Your task to perform on an android device: Show me recent news Image 0: 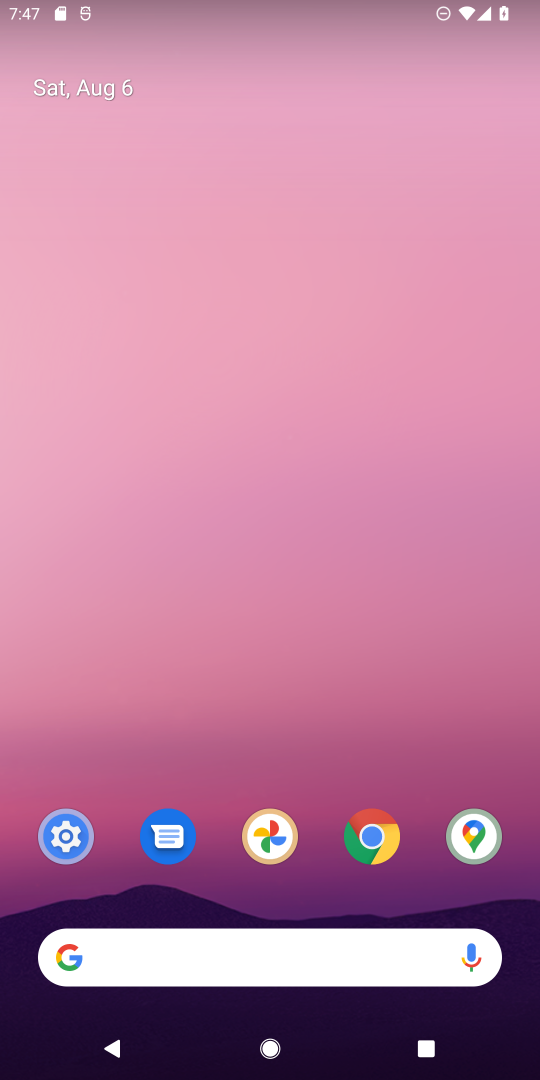
Step 0: drag from (294, 905) to (339, 352)
Your task to perform on an android device: Show me recent news Image 1: 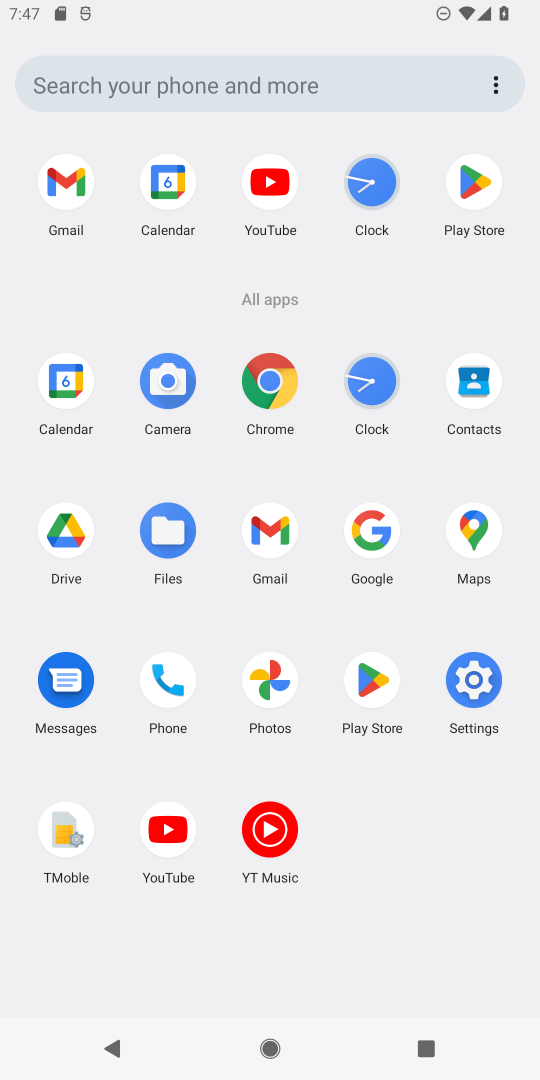
Step 1: click (364, 540)
Your task to perform on an android device: Show me recent news Image 2: 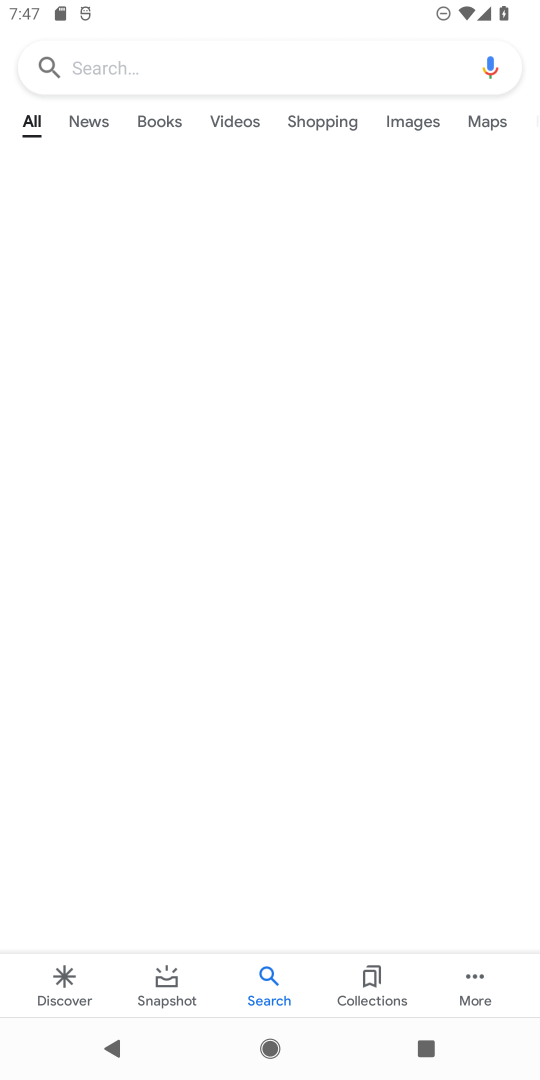
Step 2: click (128, 72)
Your task to perform on an android device: Show me recent news Image 3: 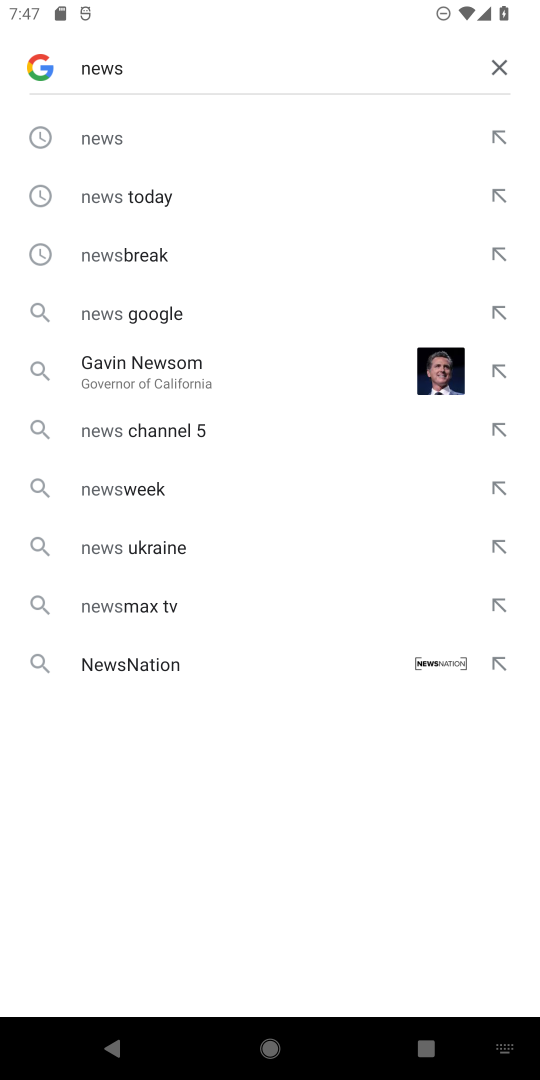
Step 3: click (510, 70)
Your task to perform on an android device: Show me recent news Image 4: 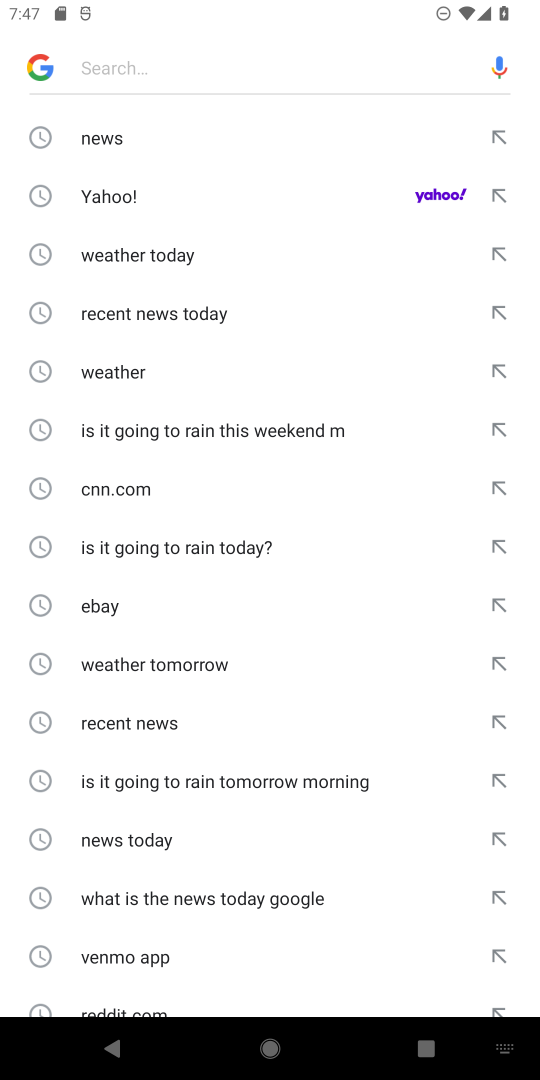
Step 4: click (142, 719)
Your task to perform on an android device: Show me recent news Image 5: 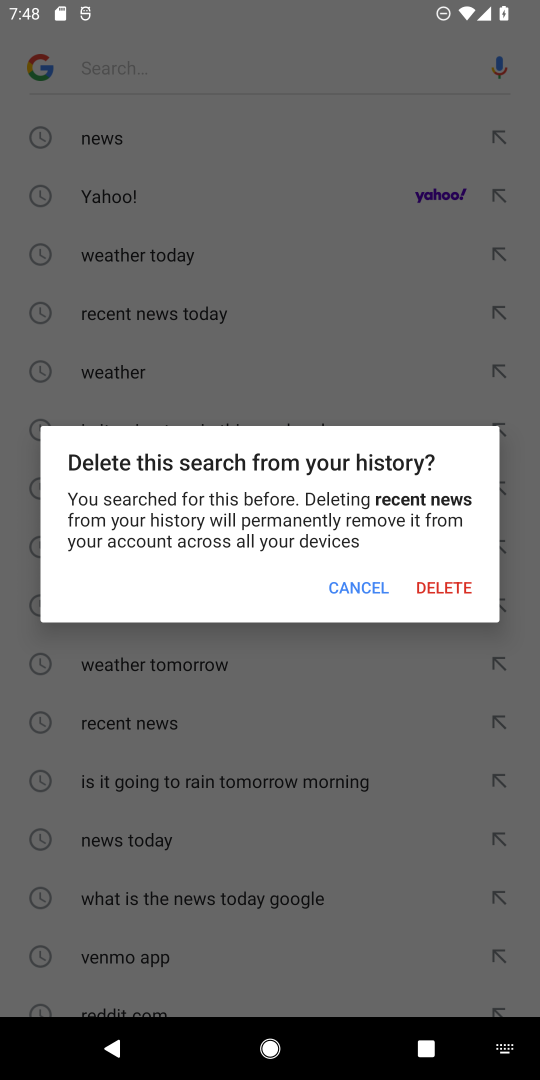
Step 5: click (381, 584)
Your task to perform on an android device: Show me recent news Image 6: 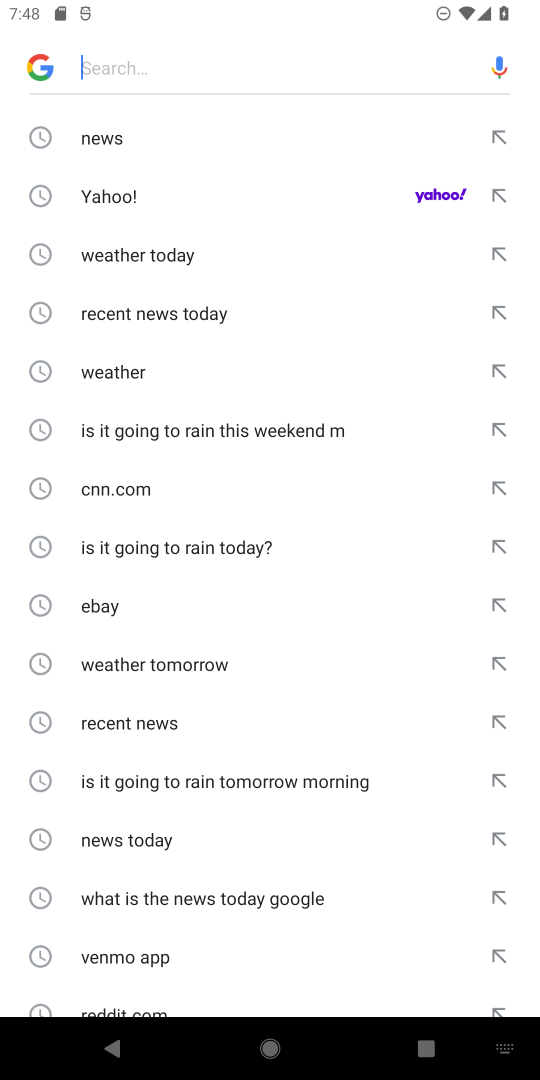
Step 6: click (145, 723)
Your task to perform on an android device: Show me recent news Image 7: 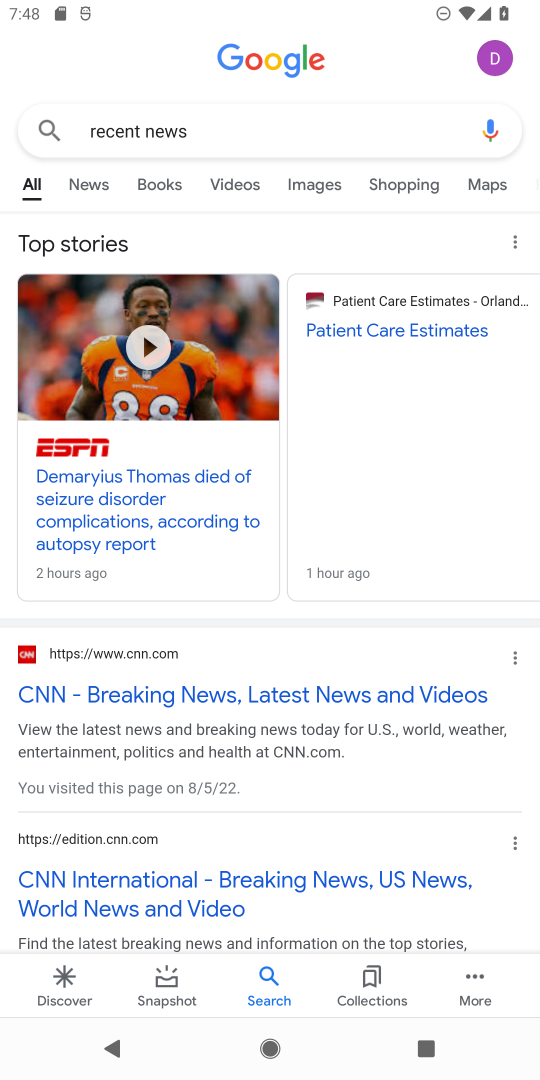
Step 7: task complete